Your task to perform on an android device: Go to location settings Image 0: 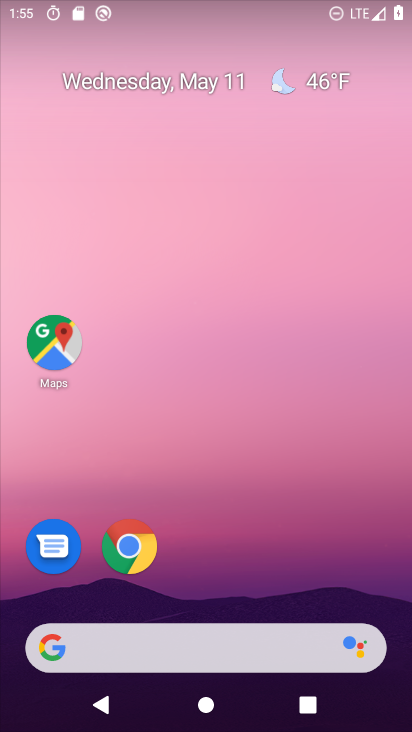
Step 0: drag from (280, 675) to (180, 273)
Your task to perform on an android device: Go to location settings Image 1: 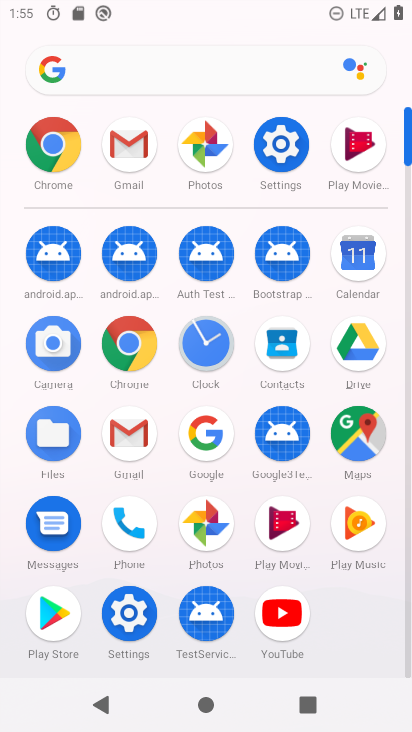
Step 1: click (271, 147)
Your task to perform on an android device: Go to location settings Image 2: 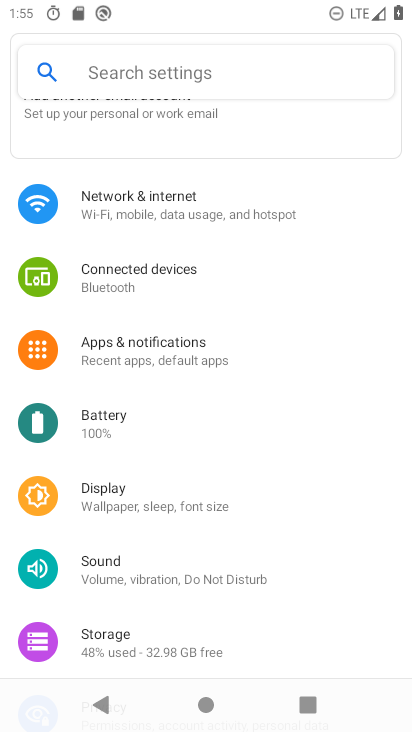
Step 2: click (233, 75)
Your task to perform on an android device: Go to location settings Image 3: 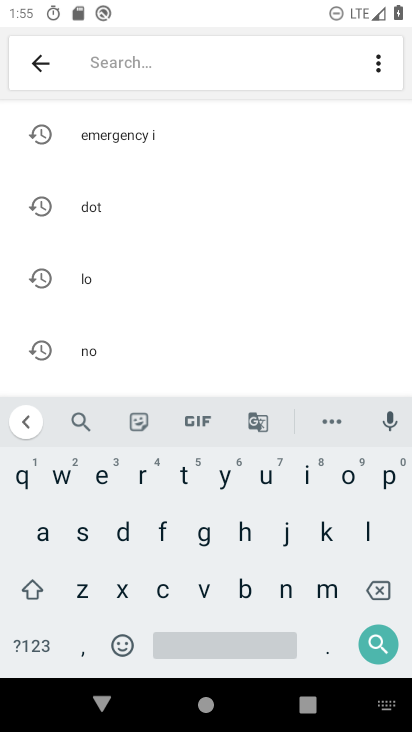
Step 3: click (363, 526)
Your task to perform on an android device: Go to location settings Image 4: 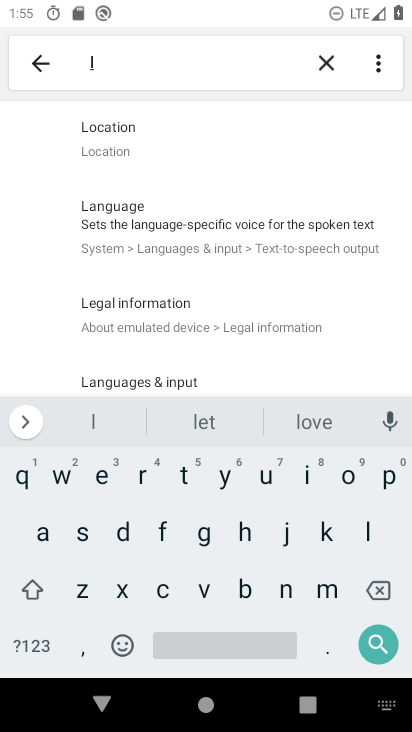
Step 4: click (128, 150)
Your task to perform on an android device: Go to location settings Image 5: 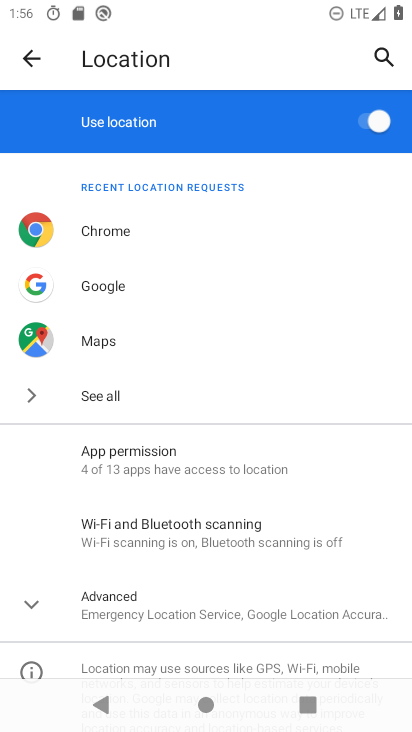
Step 5: task complete